Your task to perform on an android device: change the clock display to digital Image 0: 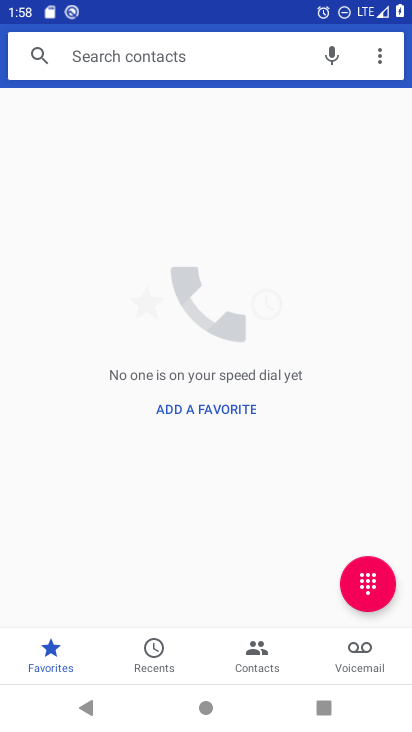
Step 0: press home button
Your task to perform on an android device: change the clock display to digital Image 1: 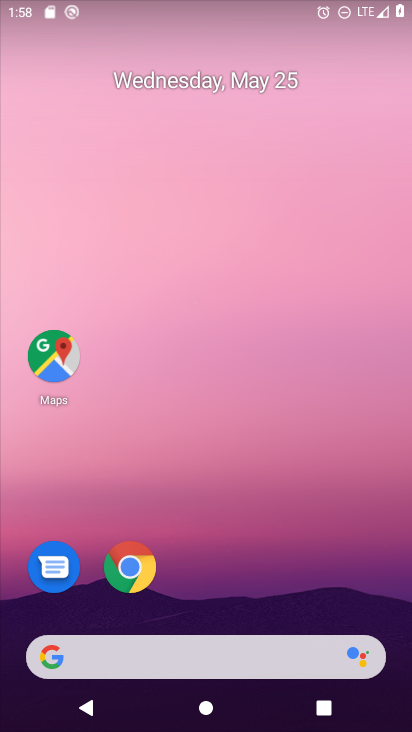
Step 1: drag from (395, 676) to (316, 158)
Your task to perform on an android device: change the clock display to digital Image 2: 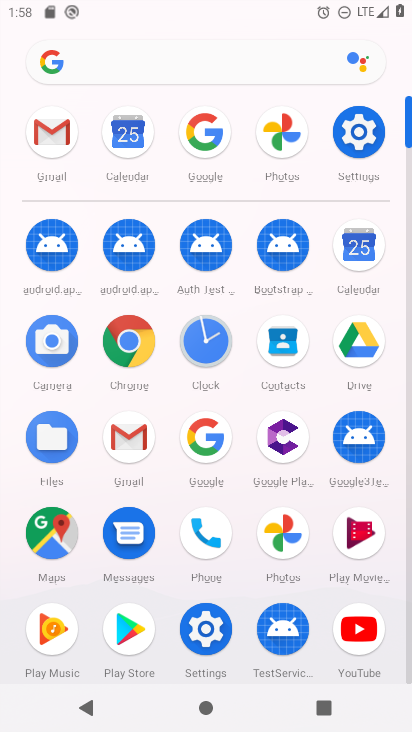
Step 2: click (203, 342)
Your task to perform on an android device: change the clock display to digital Image 3: 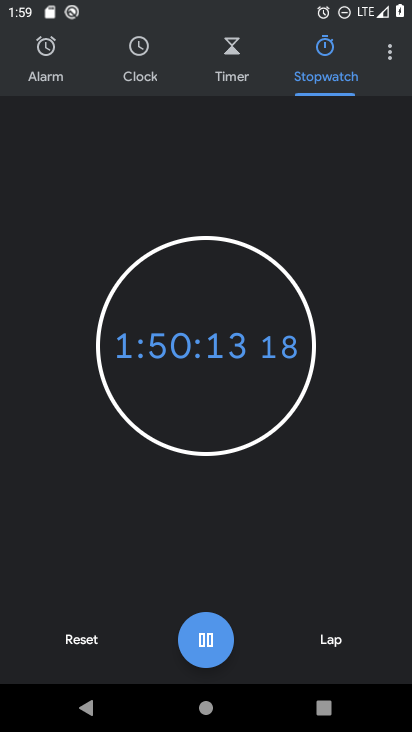
Step 3: click (389, 46)
Your task to perform on an android device: change the clock display to digital Image 4: 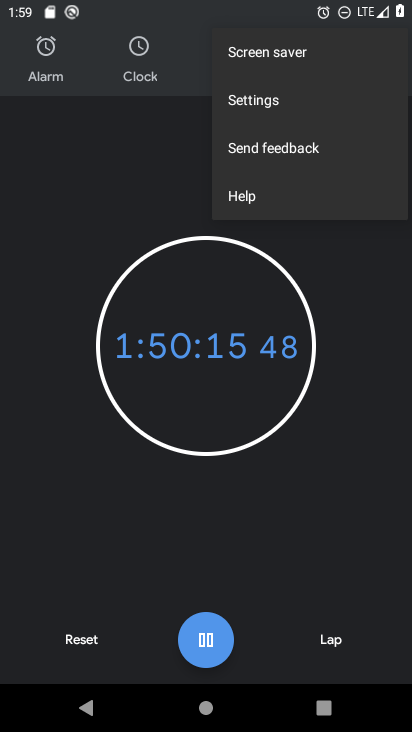
Step 4: click (261, 98)
Your task to perform on an android device: change the clock display to digital Image 5: 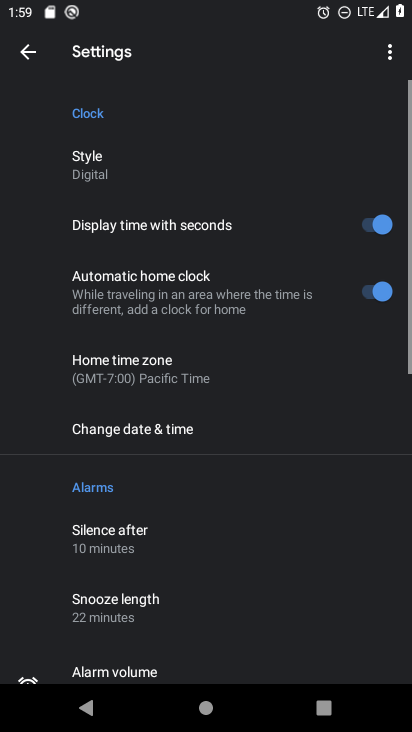
Step 5: click (89, 170)
Your task to perform on an android device: change the clock display to digital Image 6: 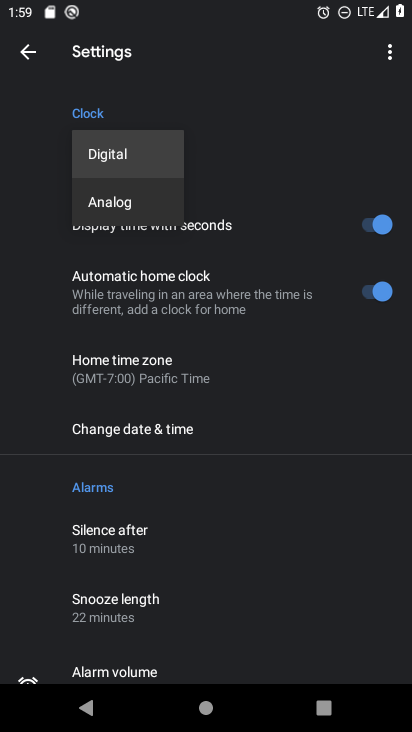
Step 6: click (96, 155)
Your task to perform on an android device: change the clock display to digital Image 7: 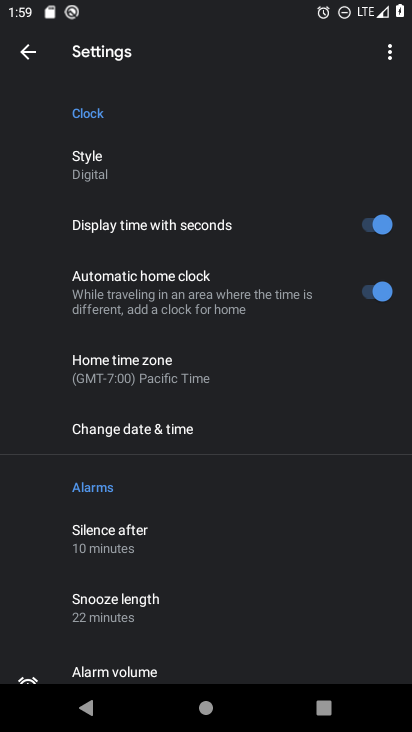
Step 7: task complete